Your task to perform on an android device: refresh tabs in the chrome app Image 0: 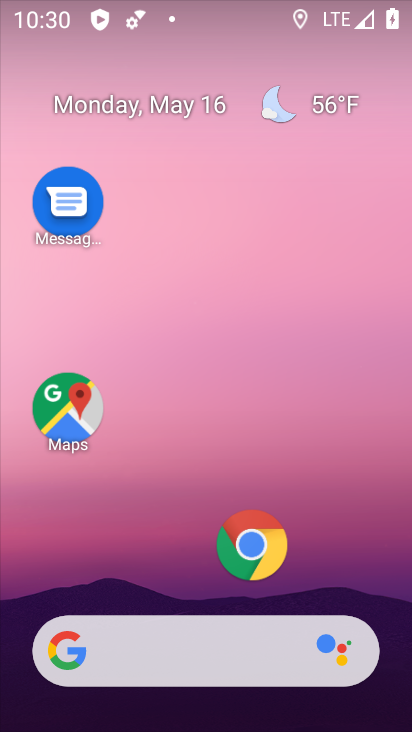
Step 0: click (243, 557)
Your task to perform on an android device: refresh tabs in the chrome app Image 1: 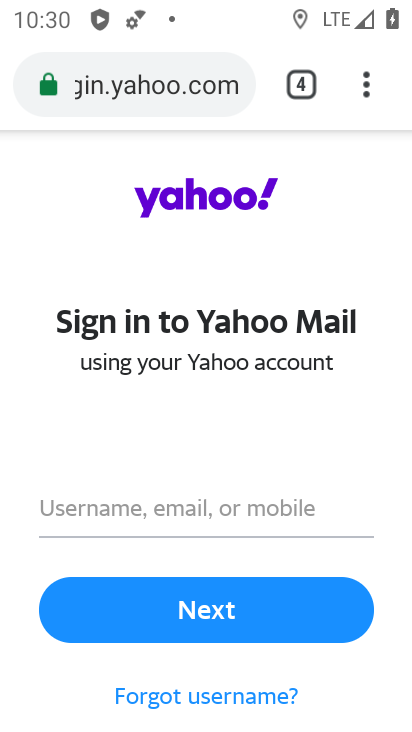
Step 1: click (363, 94)
Your task to perform on an android device: refresh tabs in the chrome app Image 2: 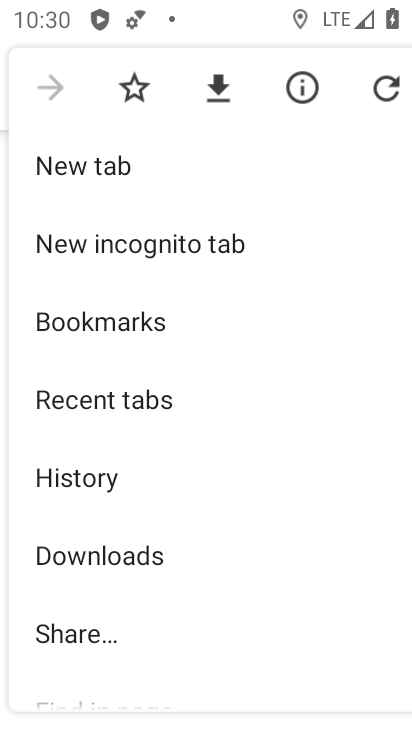
Step 2: click (377, 84)
Your task to perform on an android device: refresh tabs in the chrome app Image 3: 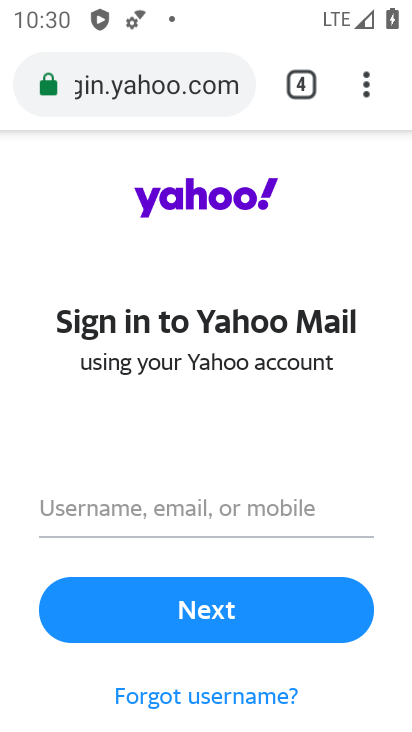
Step 3: task complete